Your task to perform on an android device: change the clock display to digital Image 0: 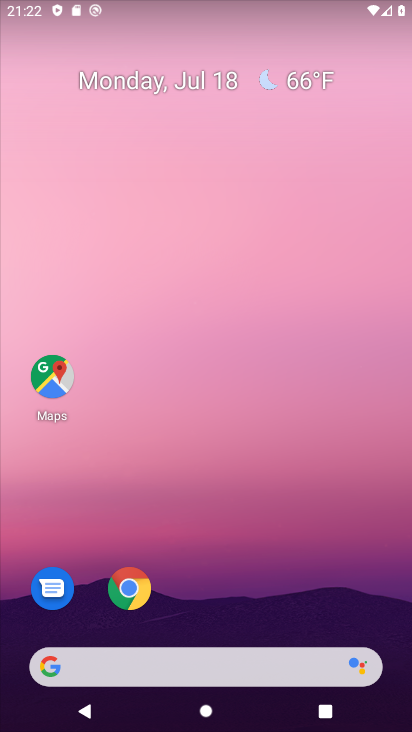
Step 0: press home button
Your task to perform on an android device: change the clock display to digital Image 1: 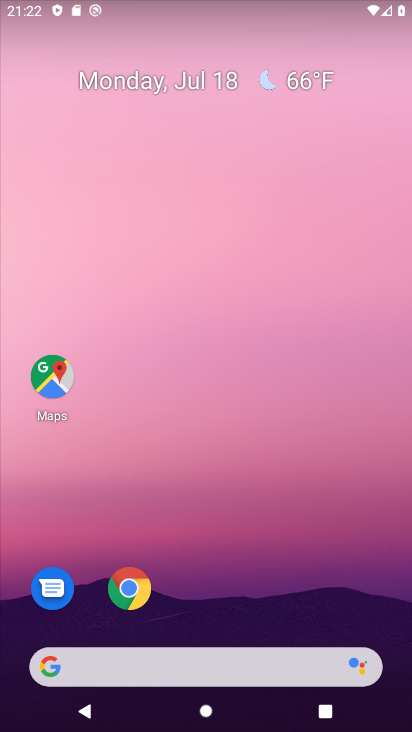
Step 1: drag from (177, 666) to (253, 58)
Your task to perform on an android device: change the clock display to digital Image 2: 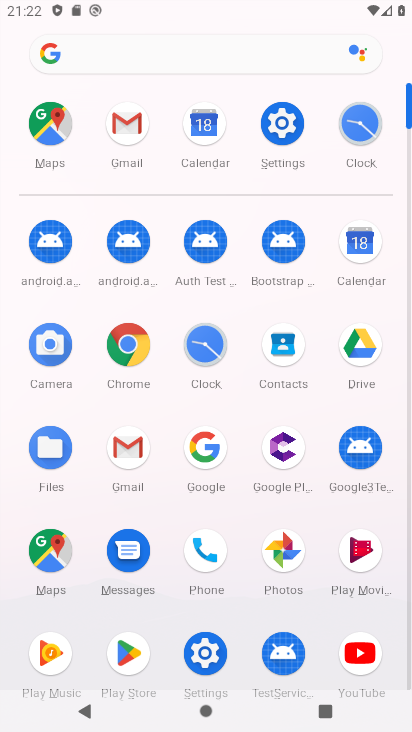
Step 2: click (358, 126)
Your task to perform on an android device: change the clock display to digital Image 3: 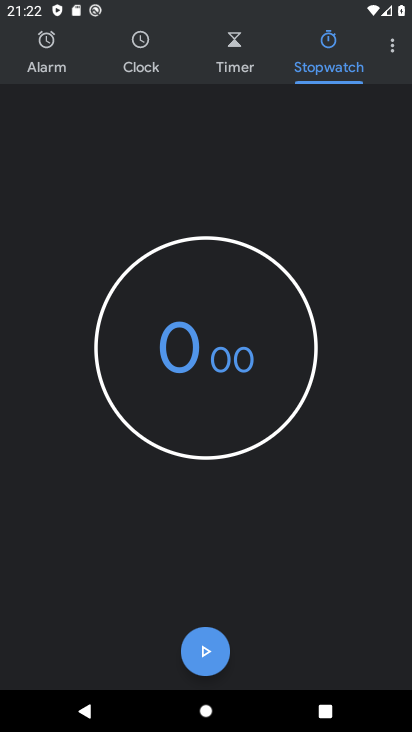
Step 3: click (392, 44)
Your task to perform on an android device: change the clock display to digital Image 4: 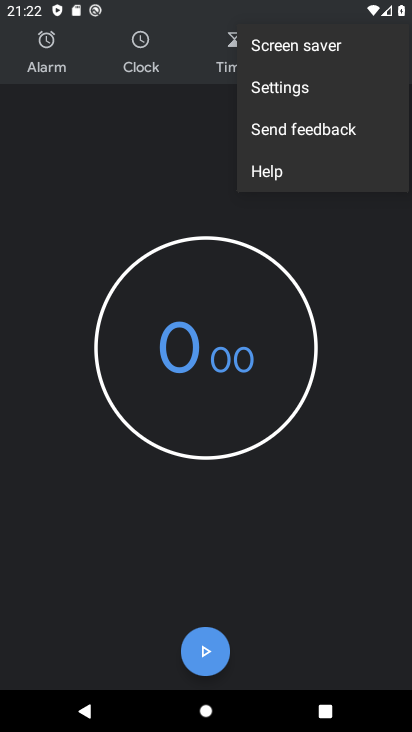
Step 4: click (296, 93)
Your task to perform on an android device: change the clock display to digital Image 5: 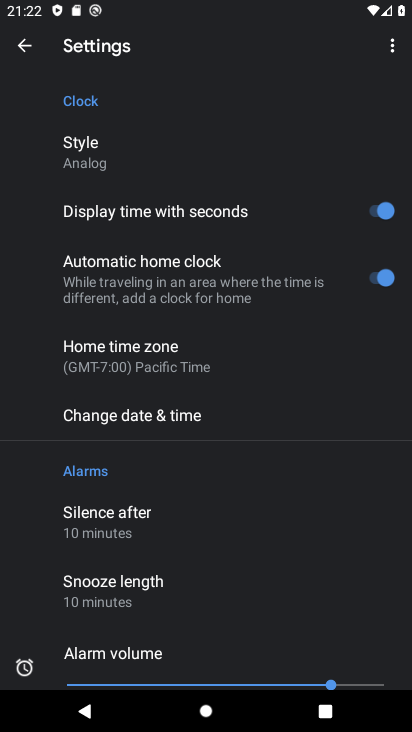
Step 5: click (101, 160)
Your task to perform on an android device: change the clock display to digital Image 6: 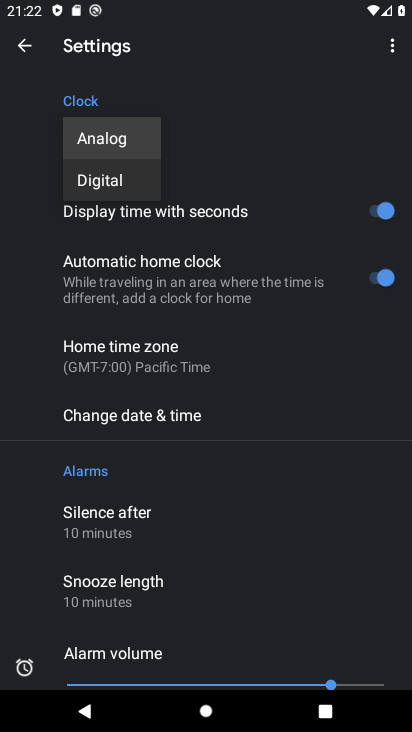
Step 6: click (105, 181)
Your task to perform on an android device: change the clock display to digital Image 7: 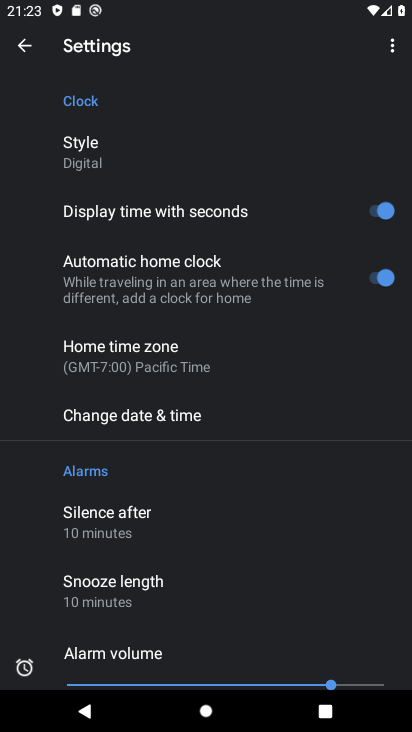
Step 7: task complete